Your task to perform on an android device: Empty the shopping cart on bestbuy.com. Add "apple airpods pro" to the cart on bestbuy.com Image 0: 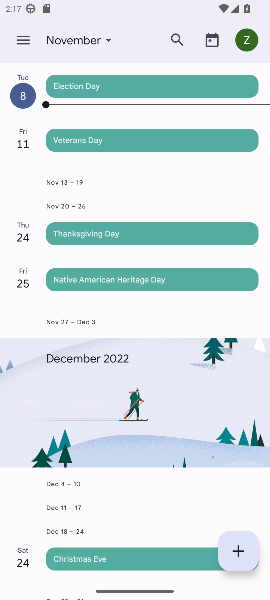
Step 0: press home button
Your task to perform on an android device: Empty the shopping cart on bestbuy.com. Add "apple airpods pro" to the cart on bestbuy.com Image 1: 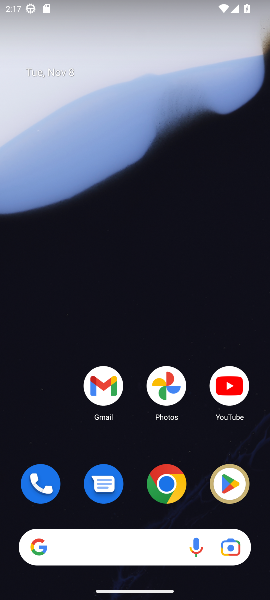
Step 1: click (174, 477)
Your task to perform on an android device: Empty the shopping cart on bestbuy.com. Add "apple airpods pro" to the cart on bestbuy.com Image 2: 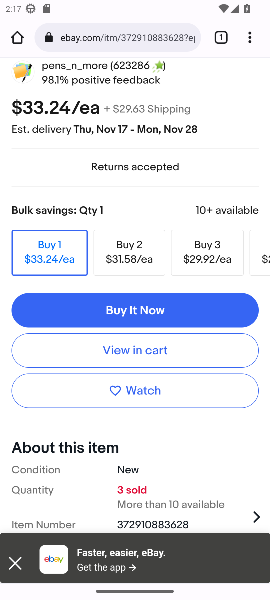
Step 2: click (120, 34)
Your task to perform on an android device: Empty the shopping cart on bestbuy.com. Add "apple airpods pro" to the cart on bestbuy.com Image 3: 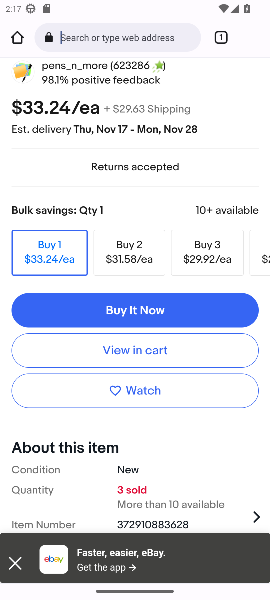
Step 3: click (120, 34)
Your task to perform on an android device: Empty the shopping cart on bestbuy.com. Add "apple airpods pro" to the cart on bestbuy.com Image 4: 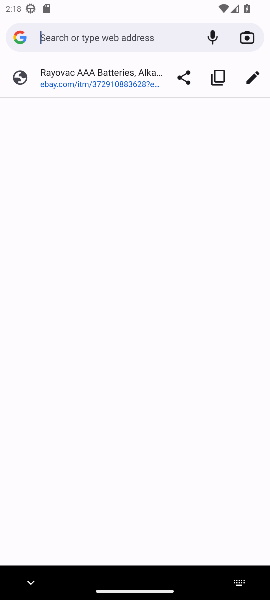
Step 4: type "bestbuy"
Your task to perform on an android device: Empty the shopping cart on bestbuy.com. Add "apple airpods pro" to the cart on bestbuy.com Image 5: 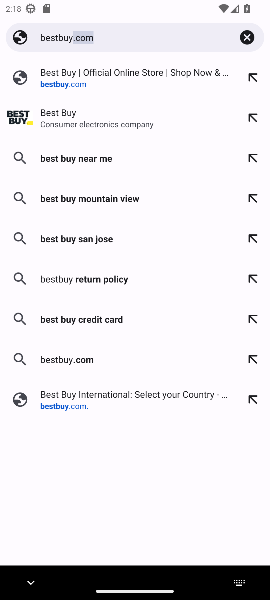
Step 5: click (57, 81)
Your task to perform on an android device: Empty the shopping cart on bestbuy.com. Add "apple airpods pro" to the cart on bestbuy.com Image 6: 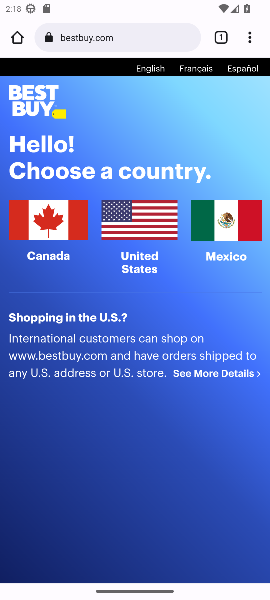
Step 6: click (104, 220)
Your task to perform on an android device: Empty the shopping cart on bestbuy.com. Add "apple airpods pro" to the cart on bestbuy.com Image 7: 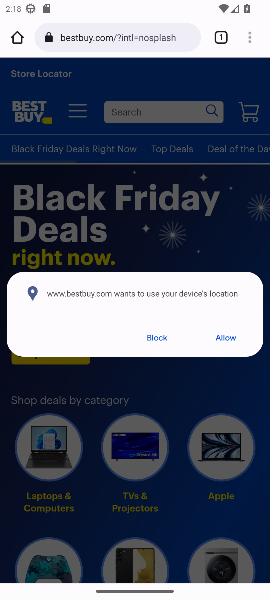
Step 7: click (229, 336)
Your task to perform on an android device: Empty the shopping cart on bestbuy.com. Add "apple airpods pro" to the cart on bestbuy.com Image 8: 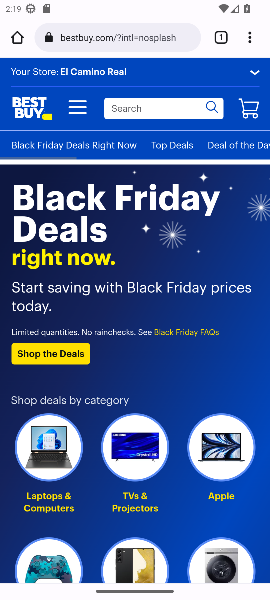
Step 8: click (143, 109)
Your task to perform on an android device: Empty the shopping cart on bestbuy.com. Add "apple airpods pro" to the cart on bestbuy.com Image 9: 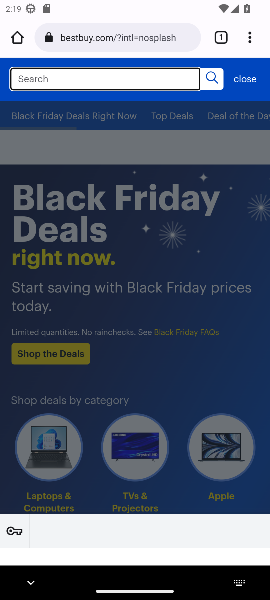
Step 9: type "apple airpods pro"
Your task to perform on an android device: Empty the shopping cart on bestbuy.com. Add "apple airpods pro" to the cart on bestbuy.com Image 10: 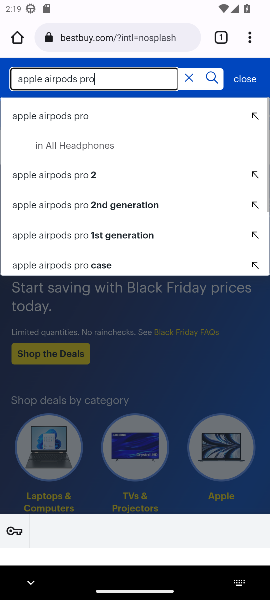
Step 10: click (216, 75)
Your task to perform on an android device: Empty the shopping cart on bestbuy.com. Add "apple airpods pro" to the cart on bestbuy.com Image 11: 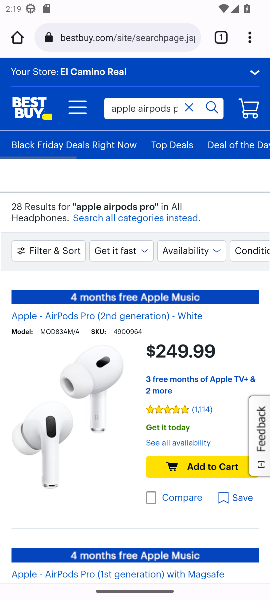
Step 11: click (218, 467)
Your task to perform on an android device: Empty the shopping cart on bestbuy.com. Add "apple airpods pro" to the cart on bestbuy.com Image 12: 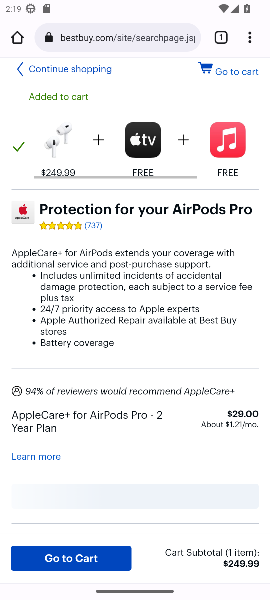
Step 12: task complete